Your task to perform on an android device: Go to Amazon Image 0: 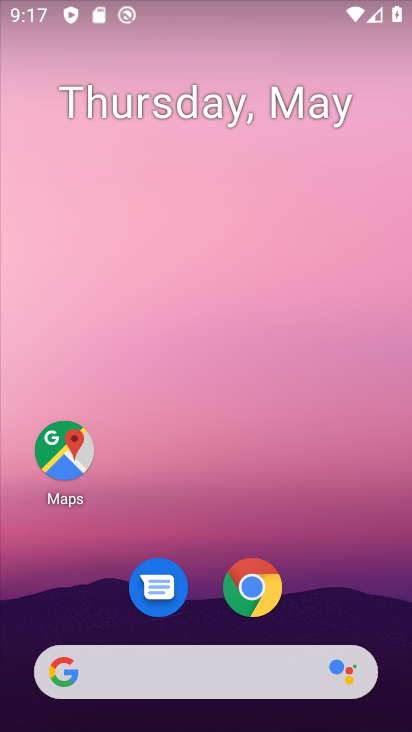
Step 0: click (261, 594)
Your task to perform on an android device: Go to Amazon Image 1: 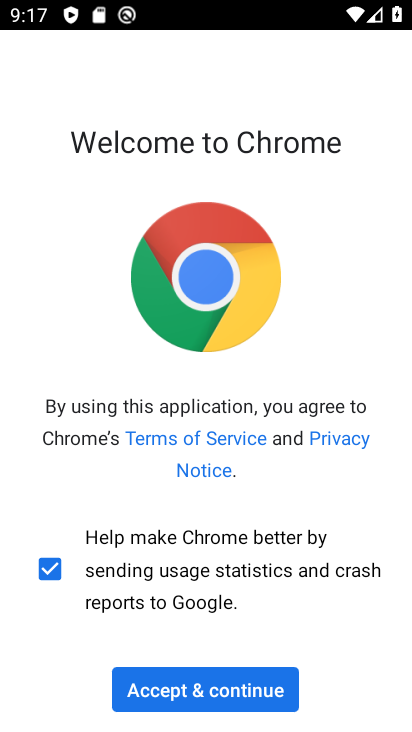
Step 1: click (171, 692)
Your task to perform on an android device: Go to Amazon Image 2: 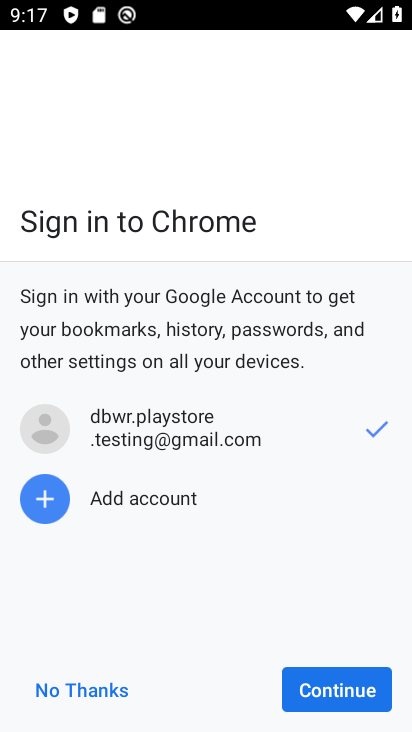
Step 2: click (362, 679)
Your task to perform on an android device: Go to Amazon Image 3: 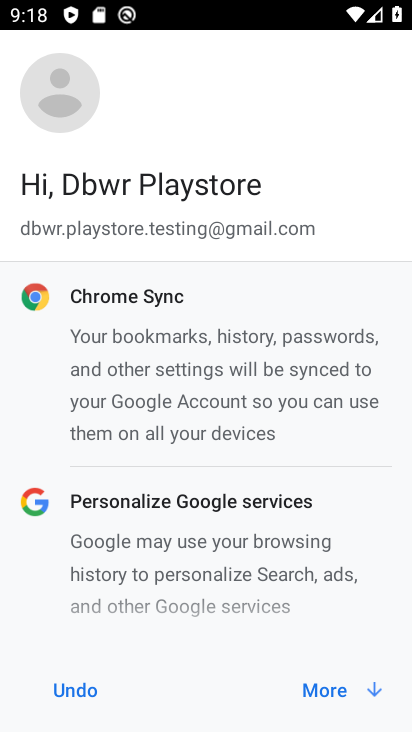
Step 3: click (362, 679)
Your task to perform on an android device: Go to Amazon Image 4: 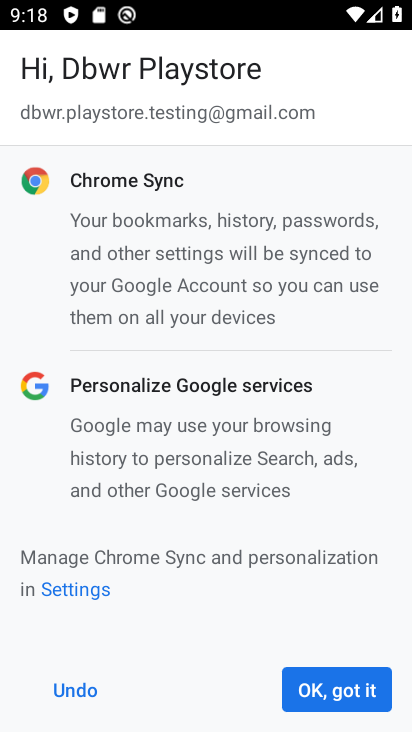
Step 4: click (362, 679)
Your task to perform on an android device: Go to Amazon Image 5: 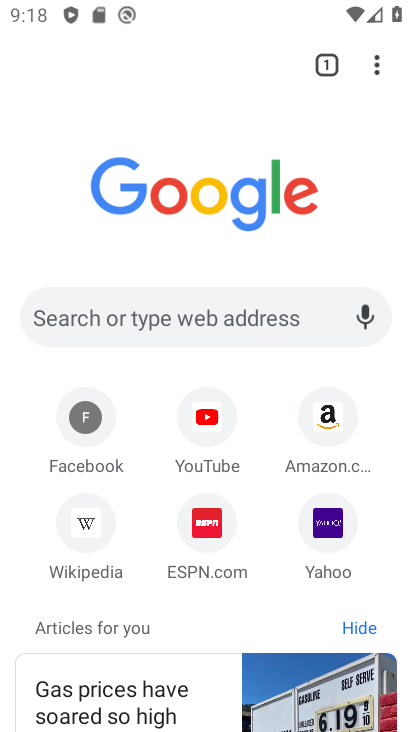
Step 5: click (329, 410)
Your task to perform on an android device: Go to Amazon Image 6: 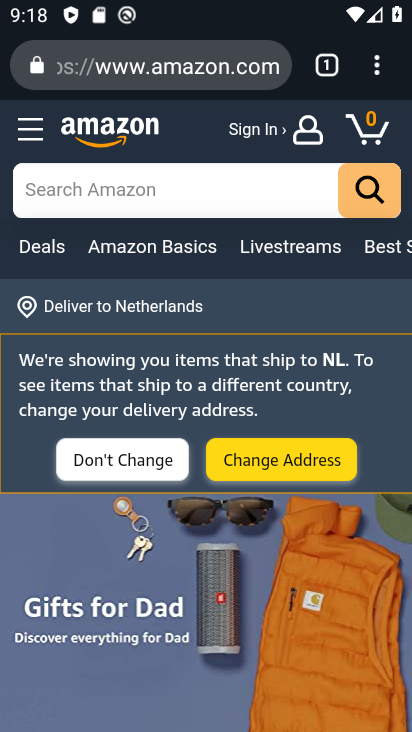
Step 6: task complete